Your task to perform on an android device: Open Google Chrome Image 0: 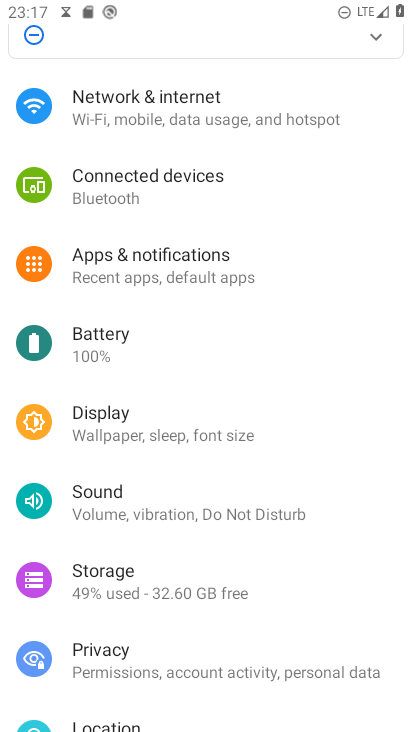
Step 0: press home button
Your task to perform on an android device: Open Google Chrome Image 1: 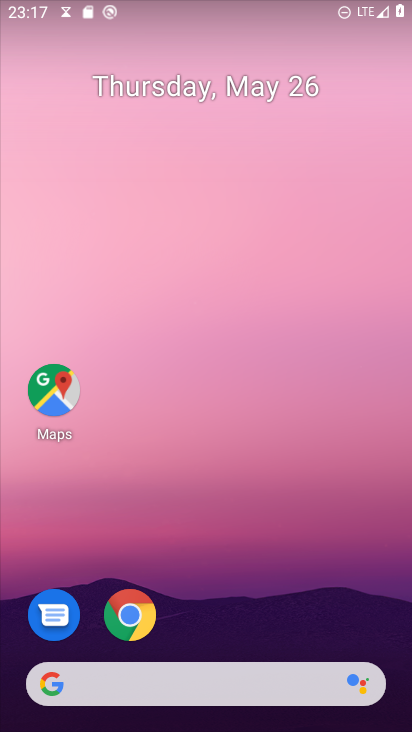
Step 1: click (126, 603)
Your task to perform on an android device: Open Google Chrome Image 2: 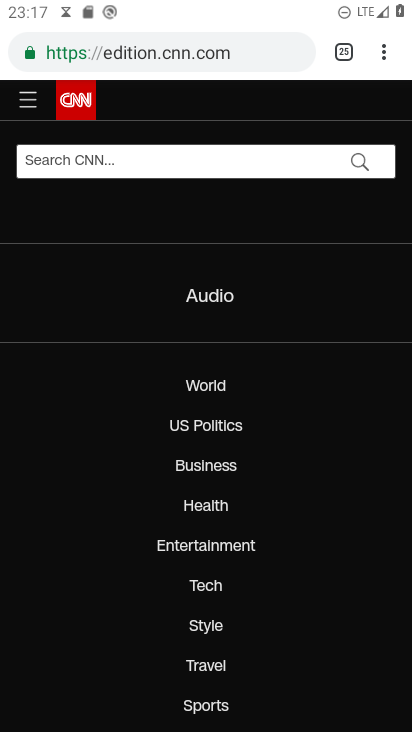
Step 2: task complete